Your task to perform on an android device: toggle sleep mode Image 0: 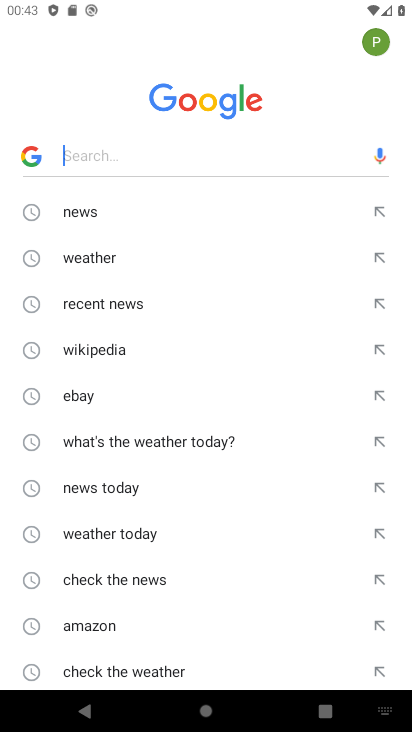
Step 0: press home button
Your task to perform on an android device: toggle sleep mode Image 1: 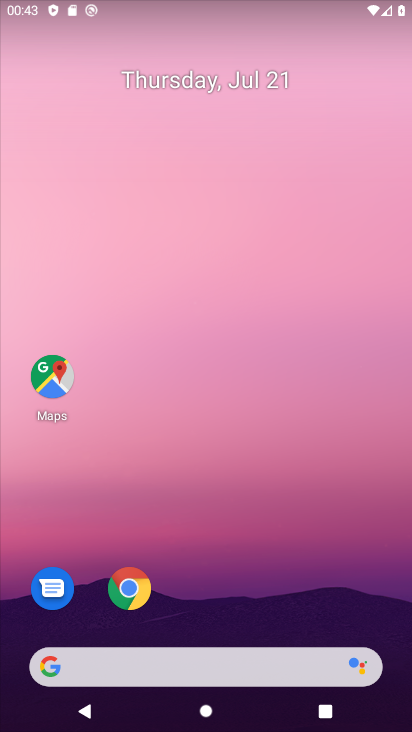
Step 1: drag from (294, 558) to (266, 155)
Your task to perform on an android device: toggle sleep mode Image 2: 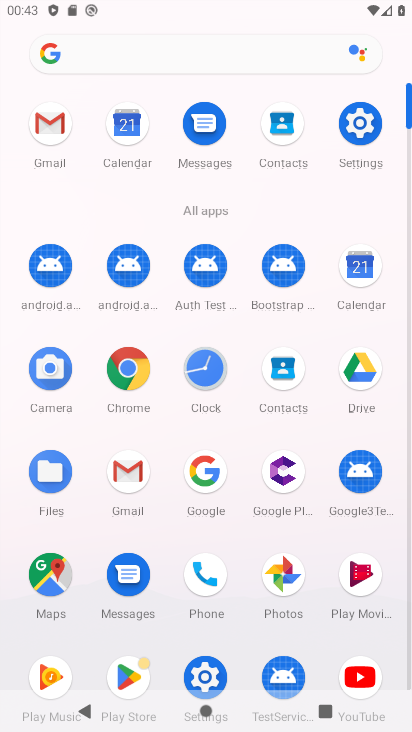
Step 2: click (215, 680)
Your task to perform on an android device: toggle sleep mode Image 3: 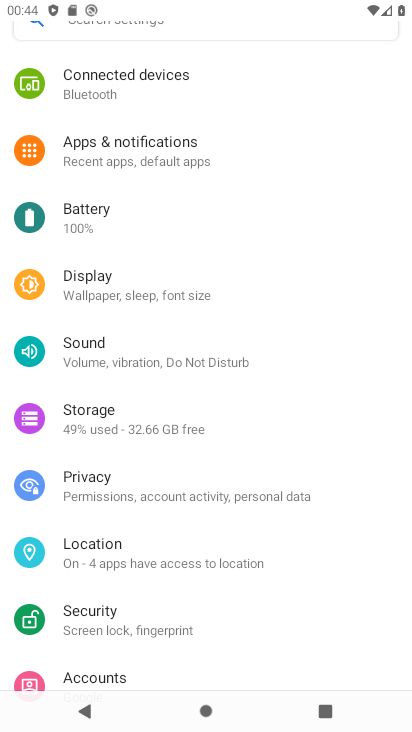
Step 3: click (116, 275)
Your task to perform on an android device: toggle sleep mode Image 4: 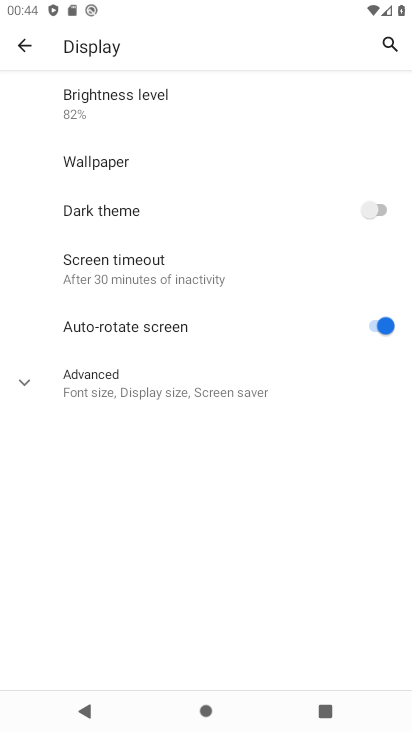
Step 4: task complete